Your task to perform on an android device: Search for Italian restaurants on Maps Image 0: 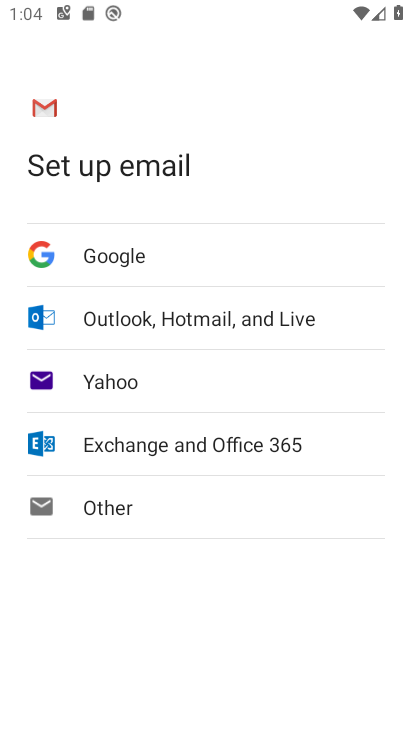
Step 0: press home button
Your task to perform on an android device: Search for Italian restaurants on Maps Image 1: 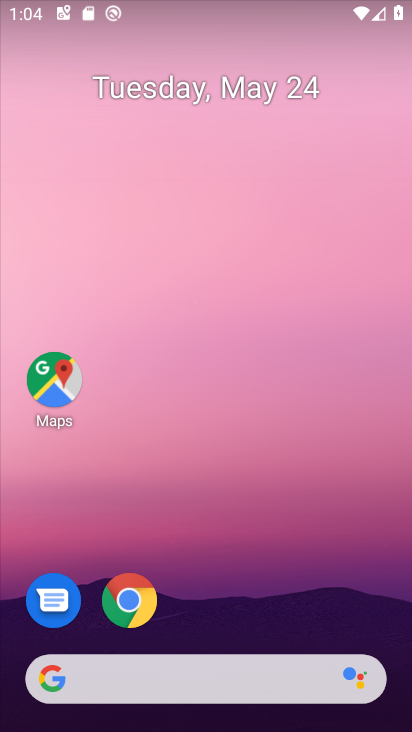
Step 1: click (49, 386)
Your task to perform on an android device: Search for Italian restaurants on Maps Image 2: 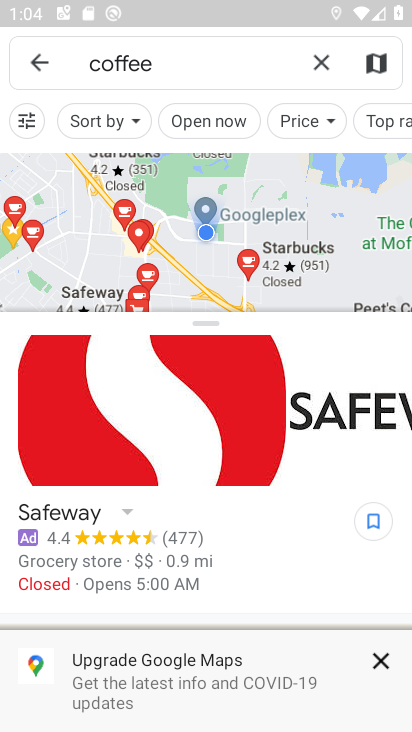
Step 2: click (312, 53)
Your task to perform on an android device: Search for Italian restaurants on Maps Image 3: 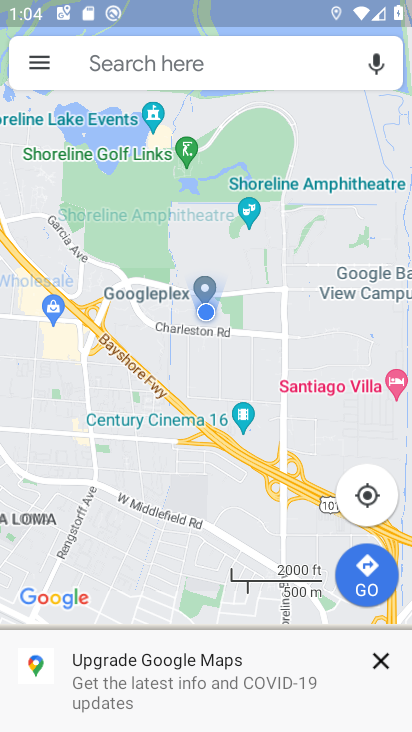
Step 3: click (233, 60)
Your task to perform on an android device: Search for Italian restaurants on Maps Image 4: 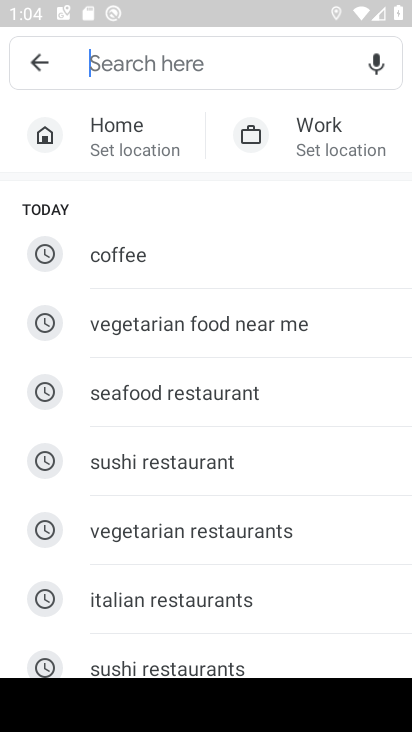
Step 4: click (201, 596)
Your task to perform on an android device: Search for Italian restaurants on Maps Image 5: 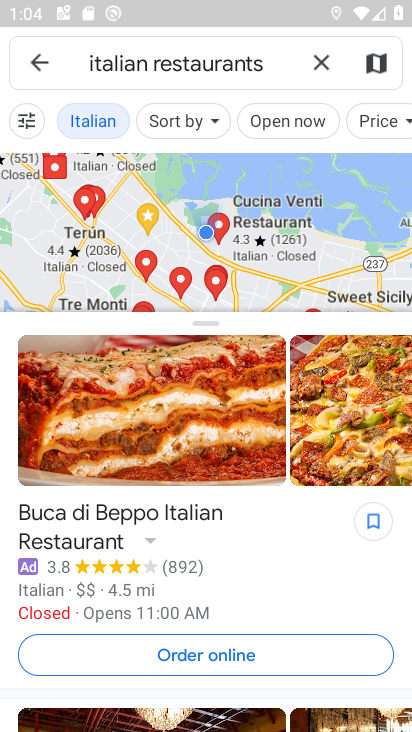
Step 5: task complete